Your task to perform on an android device: open sync settings in chrome Image 0: 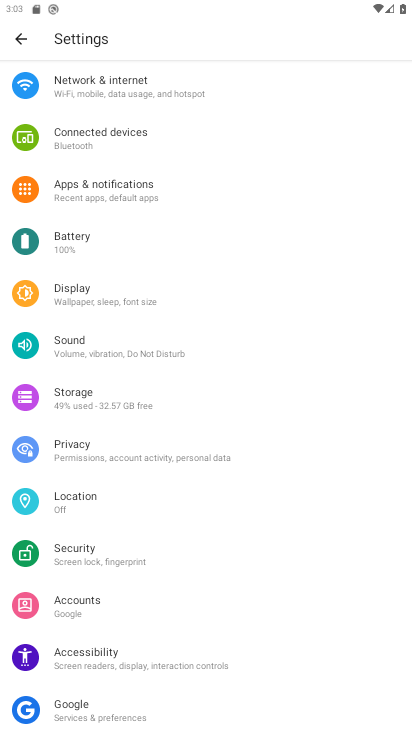
Step 0: press home button
Your task to perform on an android device: open sync settings in chrome Image 1: 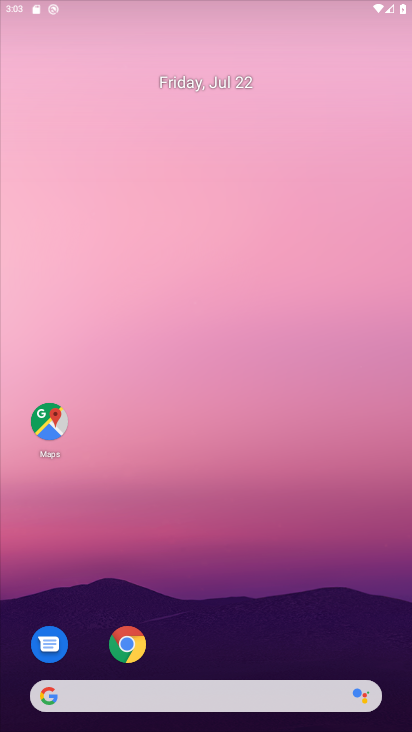
Step 1: drag from (199, 668) to (209, 365)
Your task to perform on an android device: open sync settings in chrome Image 2: 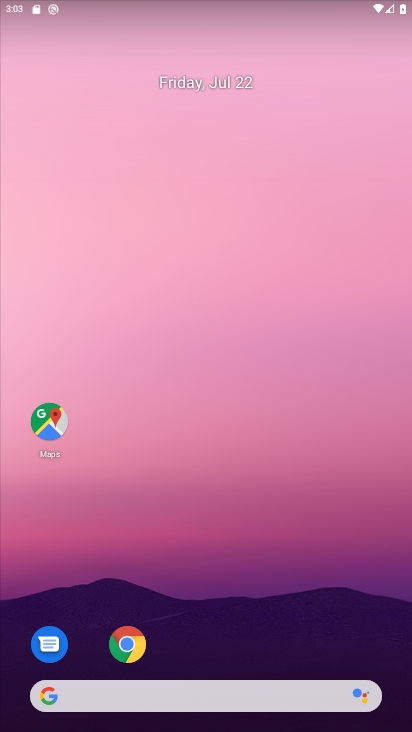
Step 2: click (131, 657)
Your task to perform on an android device: open sync settings in chrome Image 3: 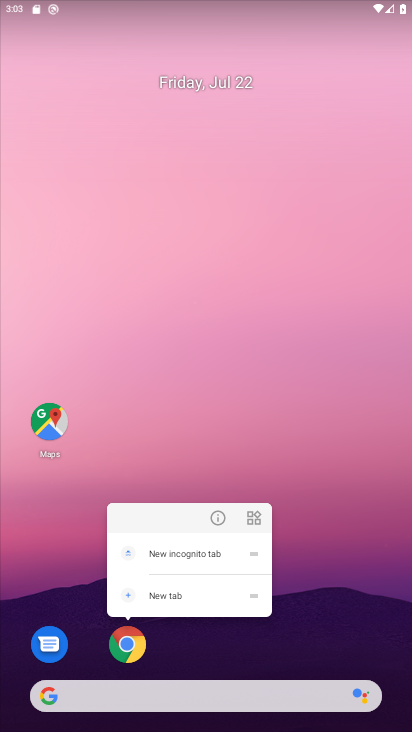
Step 3: click (131, 657)
Your task to perform on an android device: open sync settings in chrome Image 4: 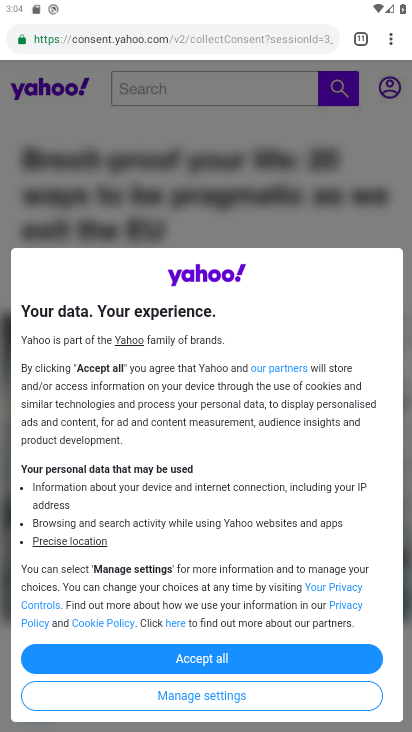
Step 4: click (389, 35)
Your task to perform on an android device: open sync settings in chrome Image 5: 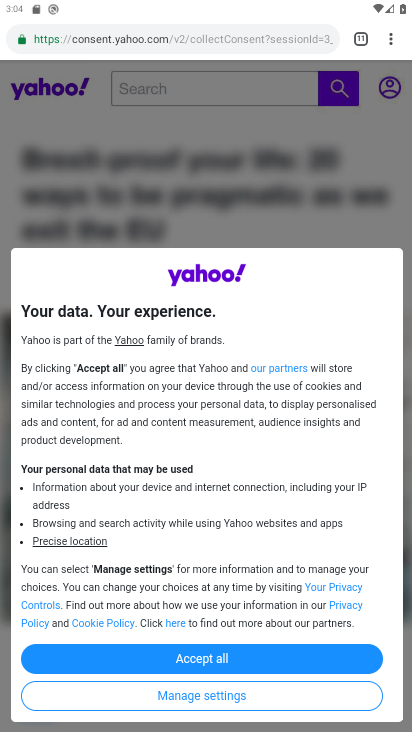
Step 5: click (391, 39)
Your task to perform on an android device: open sync settings in chrome Image 6: 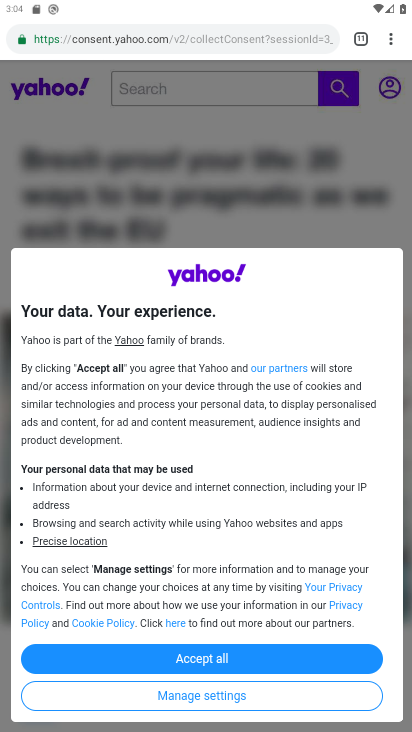
Step 6: click (391, 39)
Your task to perform on an android device: open sync settings in chrome Image 7: 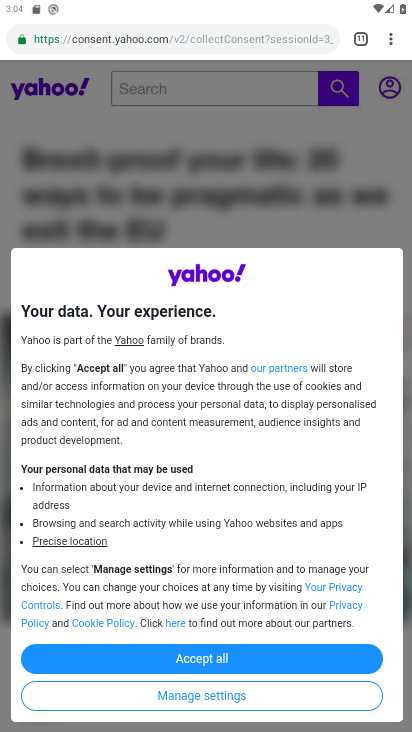
Step 7: click (397, 29)
Your task to perform on an android device: open sync settings in chrome Image 8: 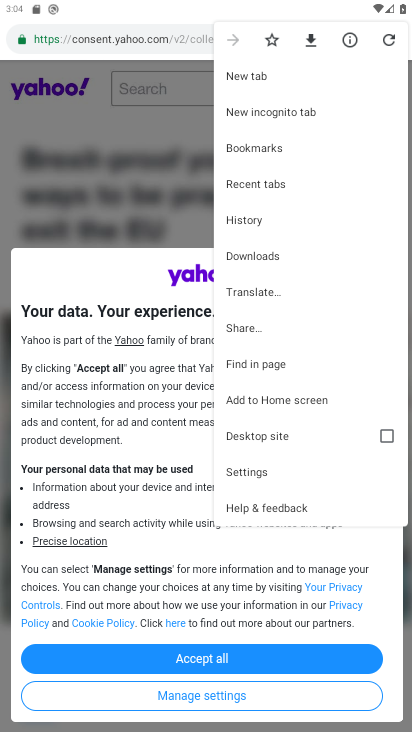
Step 8: click (238, 466)
Your task to perform on an android device: open sync settings in chrome Image 9: 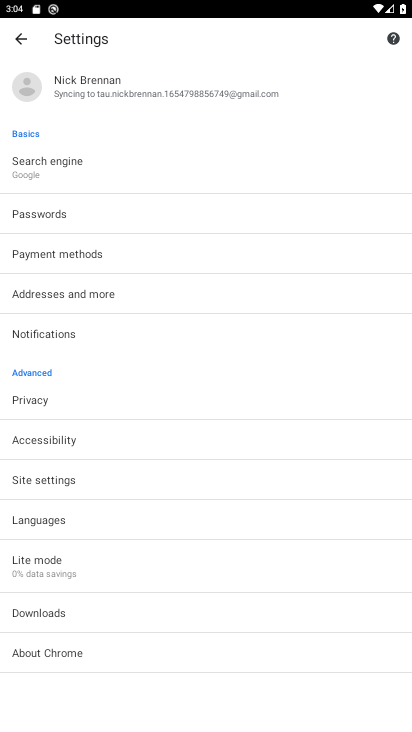
Step 9: click (113, 100)
Your task to perform on an android device: open sync settings in chrome Image 10: 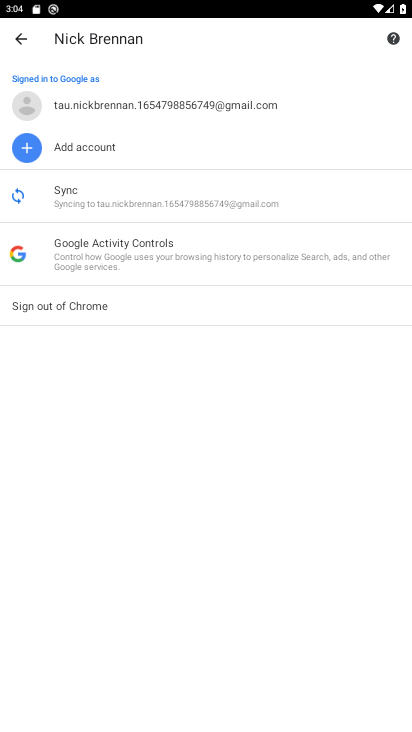
Step 10: click (102, 206)
Your task to perform on an android device: open sync settings in chrome Image 11: 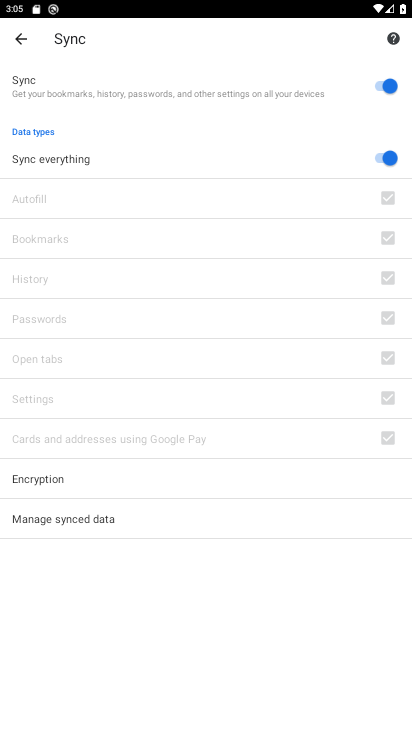
Step 11: task complete